Your task to perform on an android device: Search for the best lawnmowers on Lowes.com Image 0: 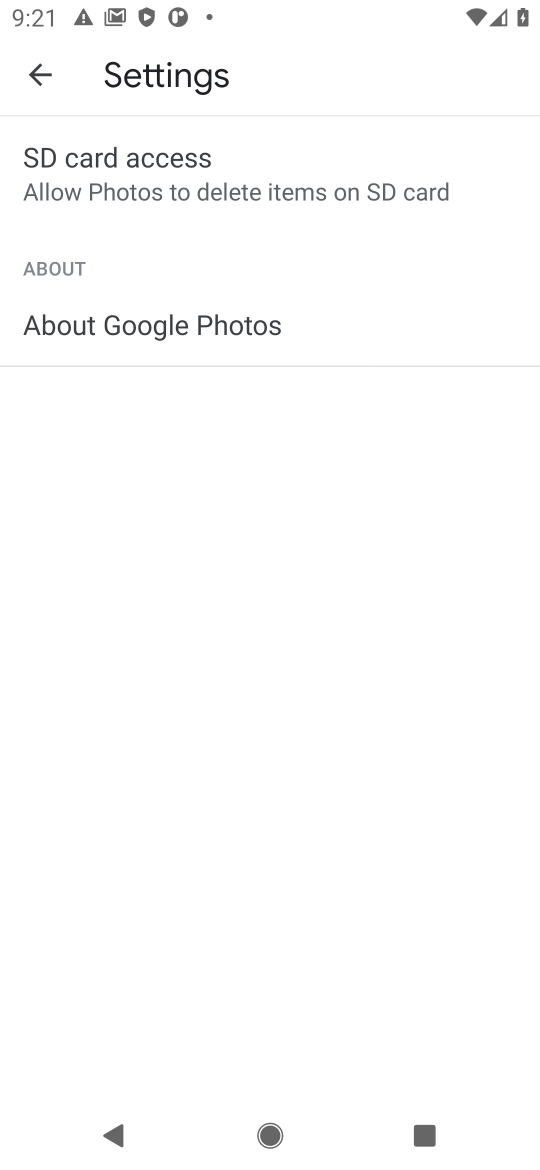
Step 0: press home button
Your task to perform on an android device: Search for the best lawnmowers on Lowes.com Image 1: 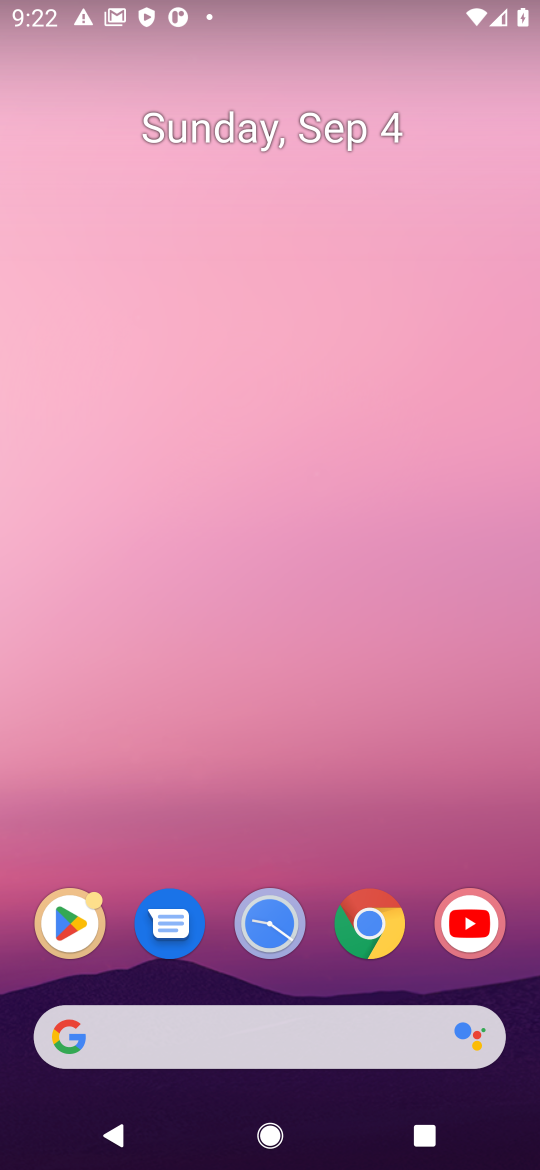
Step 1: click (398, 1037)
Your task to perform on an android device: Search for the best lawnmowers on Lowes.com Image 2: 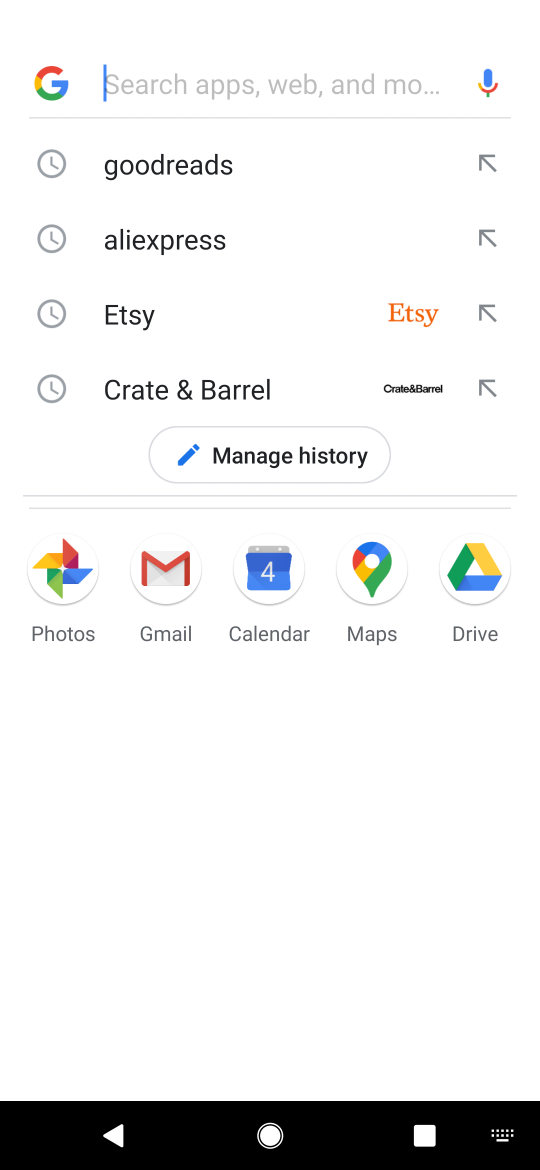
Step 2: press enter
Your task to perform on an android device: Search for the best lawnmowers on Lowes.com Image 3: 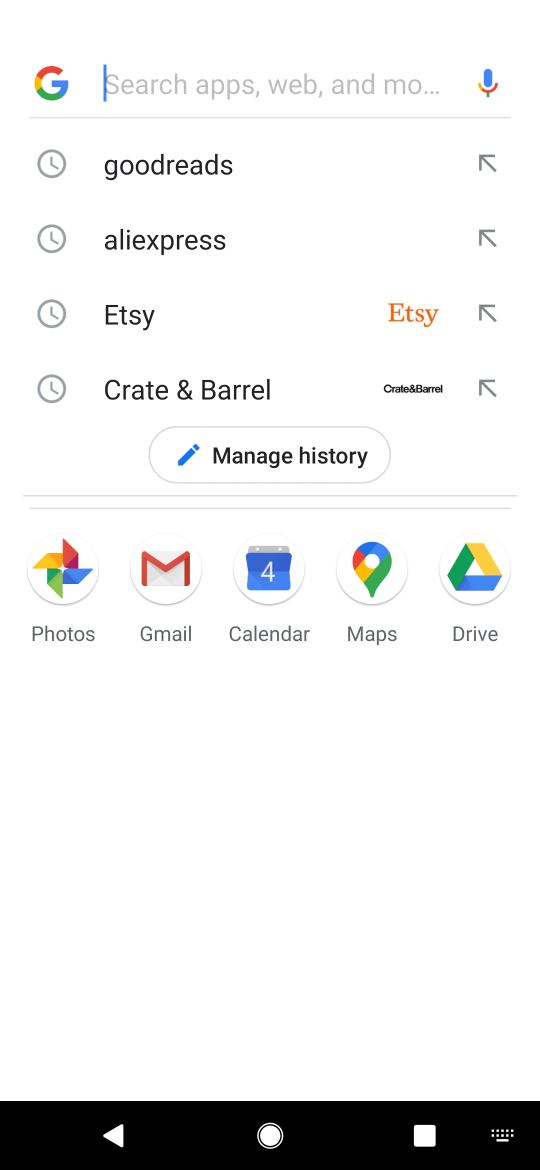
Step 3: type "lowes.com"
Your task to perform on an android device: Search for the best lawnmowers on Lowes.com Image 4: 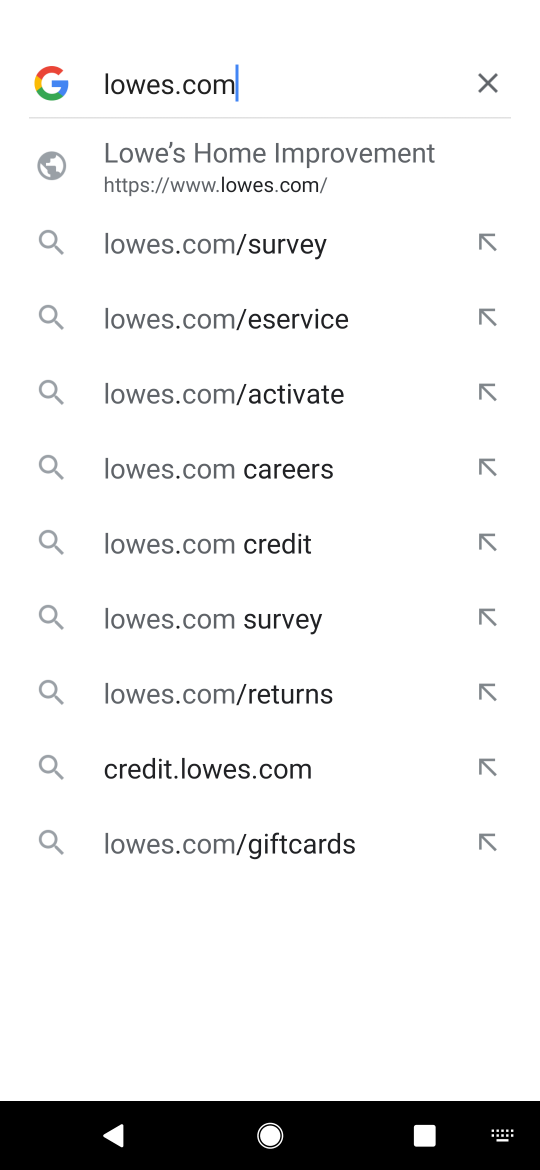
Step 4: click (218, 168)
Your task to perform on an android device: Search for the best lawnmowers on Lowes.com Image 5: 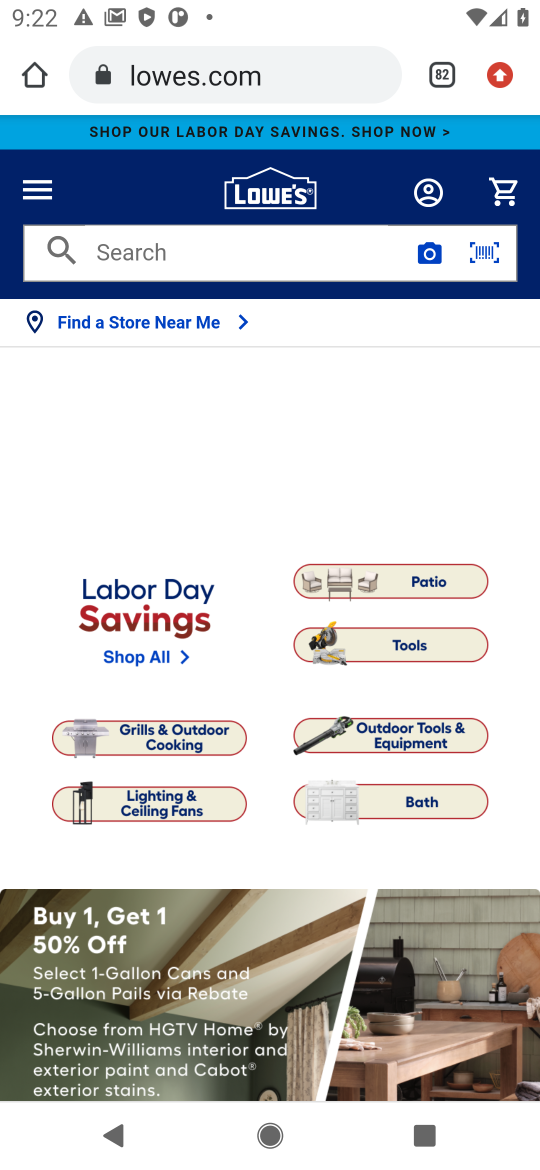
Step 5: click (130, 245)
Your task to perform on an android device: Search for the best lawnmowers on Lowes.com Image 6: 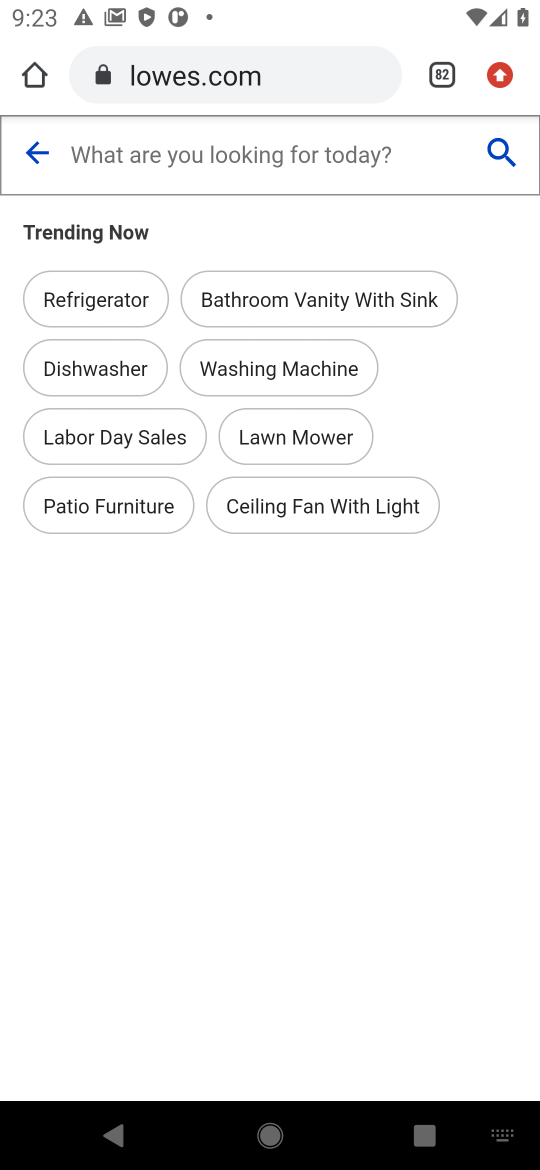
Step 6: press enter
Your task to perform on an android device: Search for the best lawnmowers on Lowes.com Image 7: 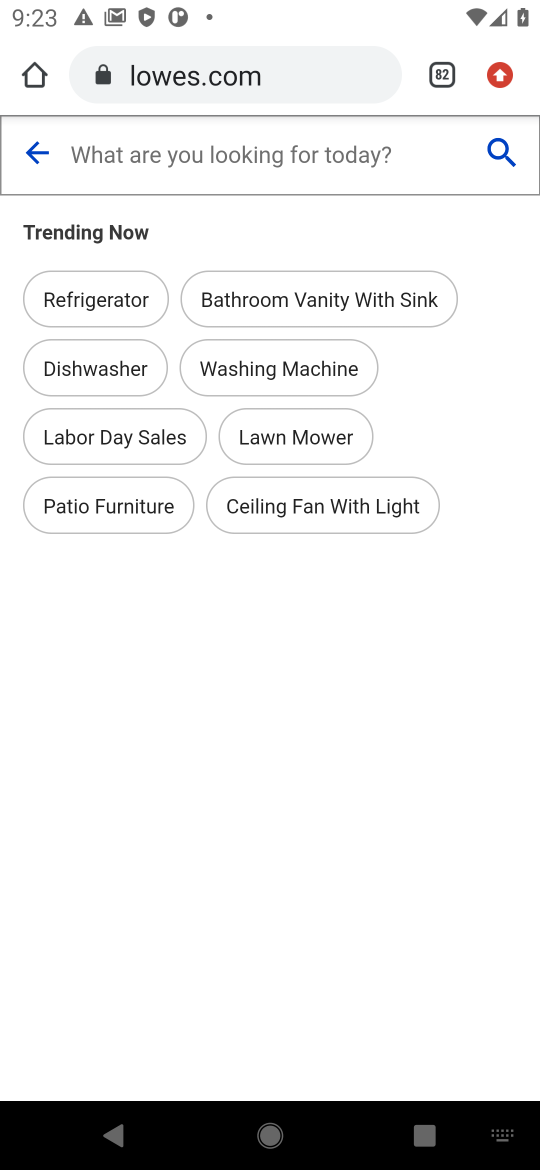
Step 7: type "best lawnmowers "
Your task to perform on an android device: Search for the best lawnmowers on Lowes.com Image 8: 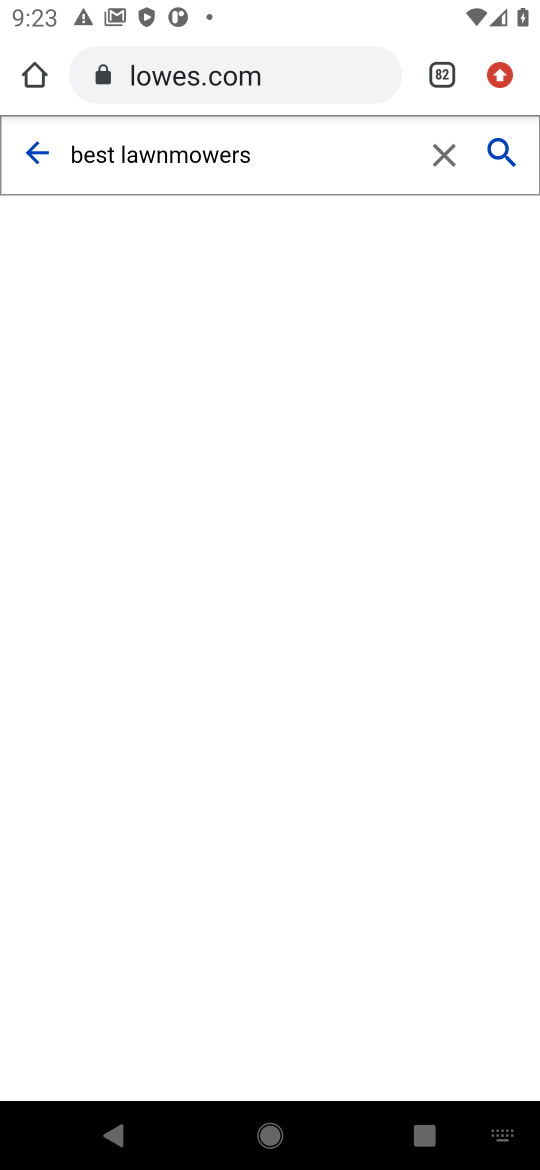
Step 8: click (504, 142)
Your task to perform on an android device: Search for the best lawnmowers on Lowes.com Image 9: 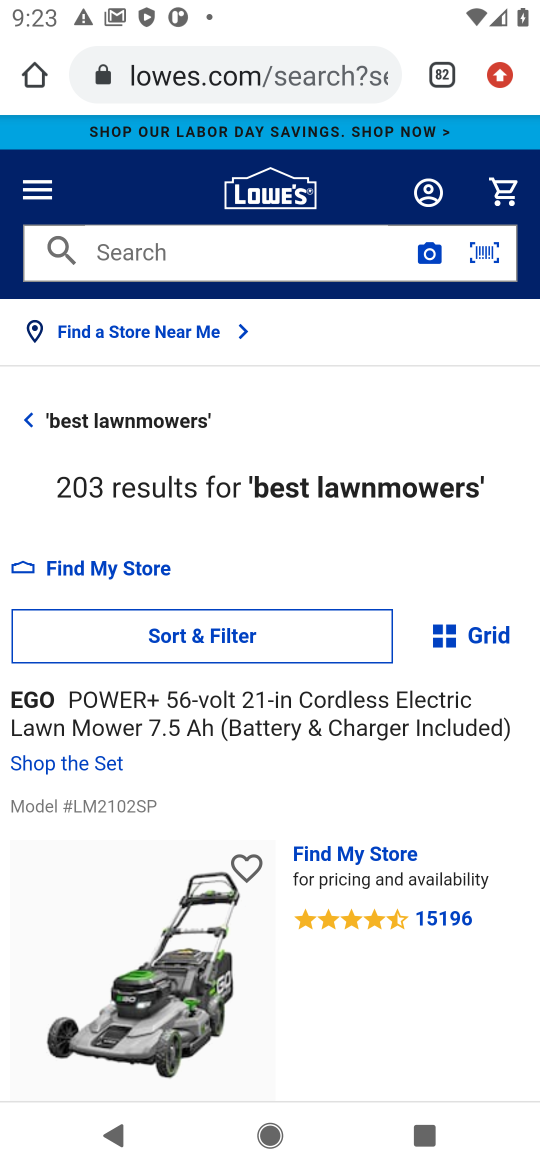
Step 9: task complete